Your task to perform on an android device: Play the last video I watched on Youtube Image 0: 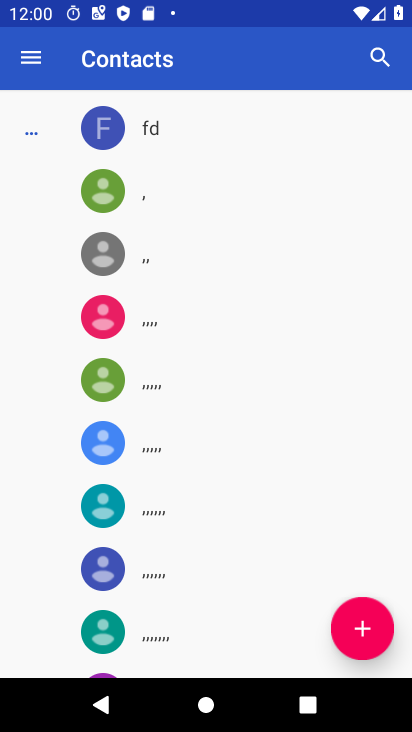
Step 0: press home button
Your task to perform on an android device: Play the last video I watched on Youtube Image 1: 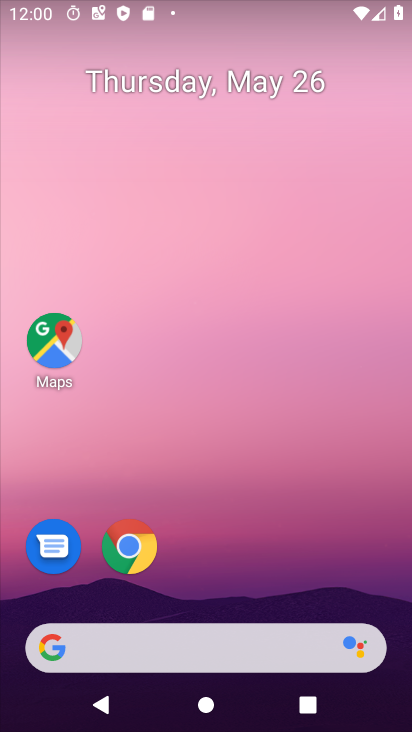
Step 1: drag from (244, 485) to (253, 40)
Your task to perform on an android device: Play the last video I watched on Youtube Image 2: 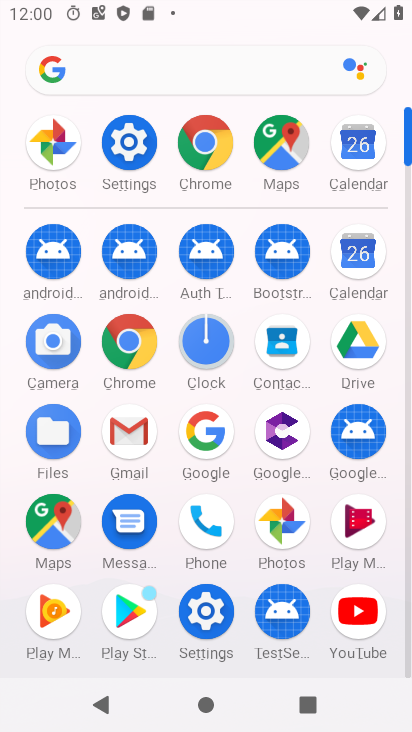
Step 2: click (348, 609)
Your task to perform on an android device: Play the last video I watched on Youtube Image 3: 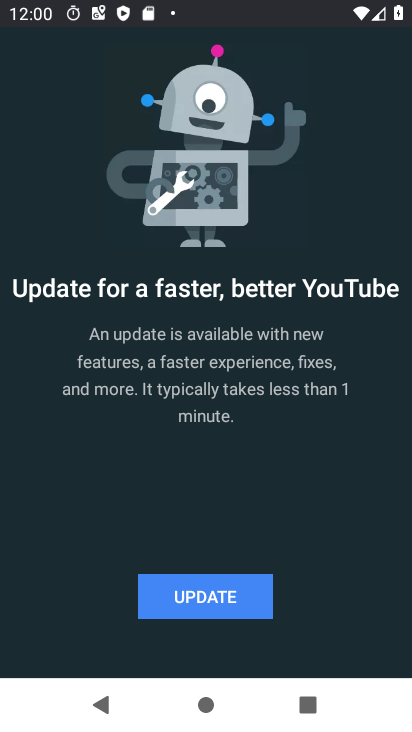
Step 3: click (165, 595)
Your task to perform on an android device: Play the last video I watched on Youtube Image 4: 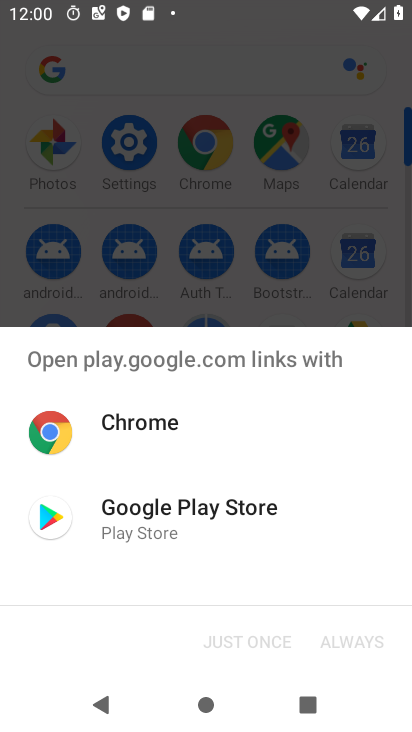
Step 4: click (145, 527)
Your task to perform on an android device: Play the last video I watched on Youtube Image 5: 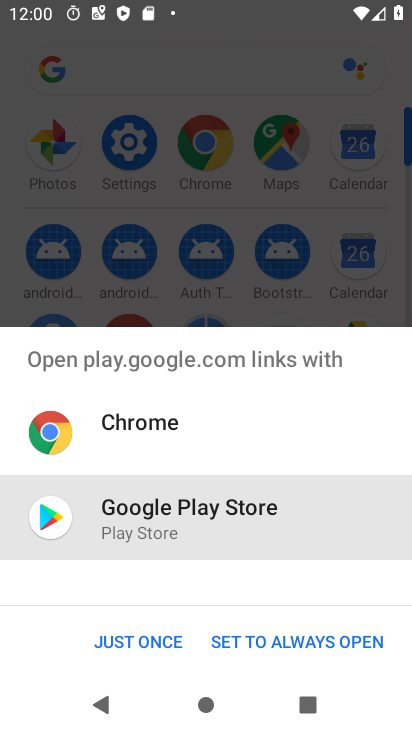
Step 5: drag from (143, 633) to (184, 633)
Your task to perform on an android device: Play the last video I watched on Youtube Image 6: 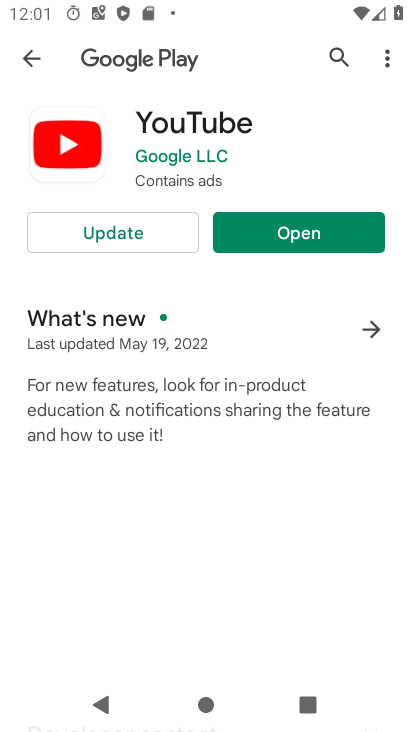
Step 6: click (176, 237)
Your task to perform on an android device: Play the last video I watched on Youtube Image 7: 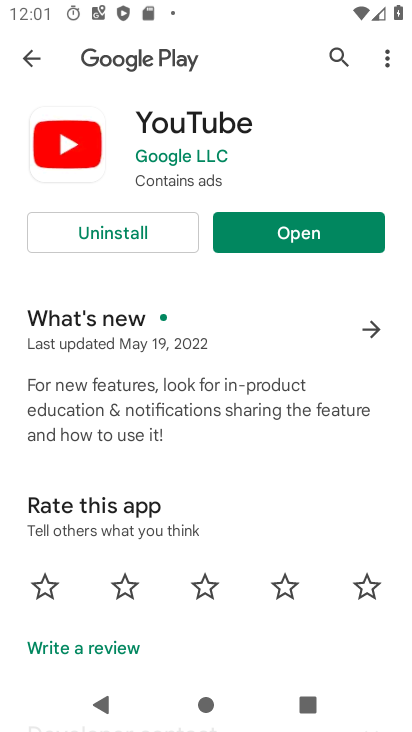
Step 7: click (307, 232)
Your task to perform on an android device: Play the last video I watched on Youtube Image 8: 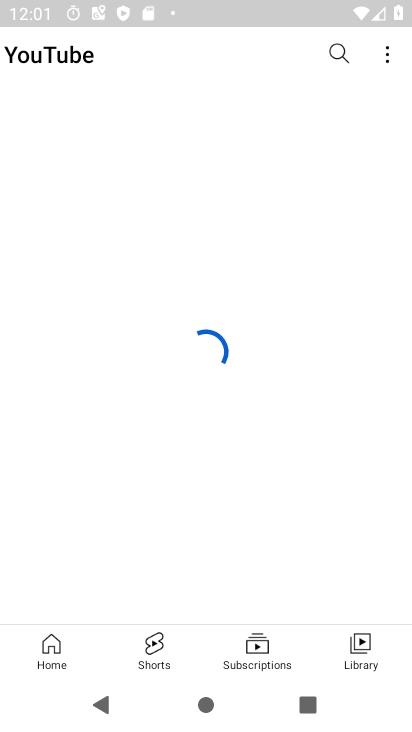
Step 8: click (365, 653)
Your task to perform on an android device: Play the last video I watched on Youtube Image 9: 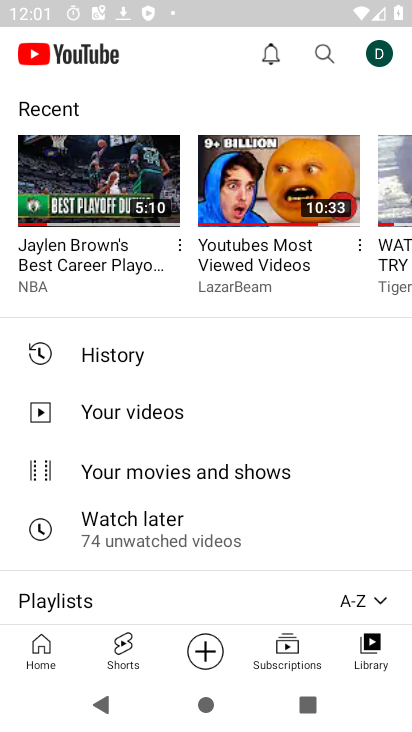
Step 9: click (66, 194)
Your task to perform on an android device: Play the last video I watched on Youtube Image 10: 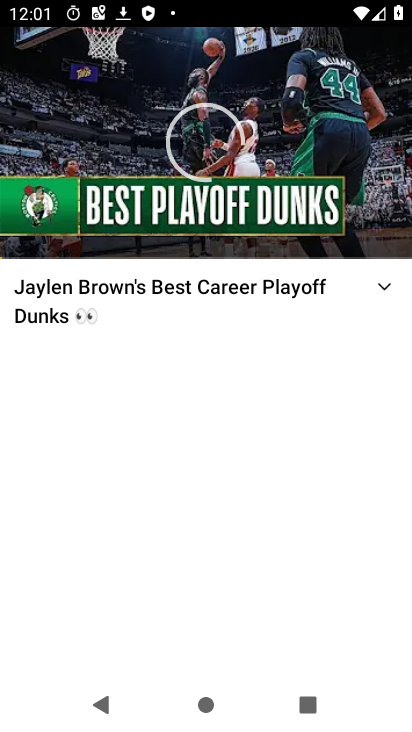
Step 10: task complete